Your task to perform on an android device: delete a single message in the gmail app Image 0: 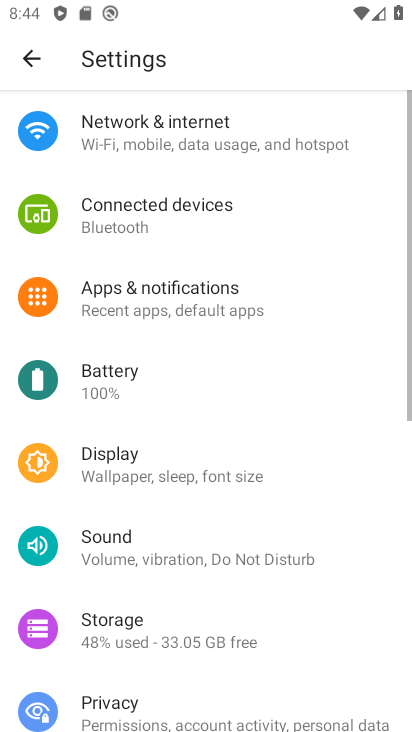
Step 0: press home button
Your task to perform on an android device: delete a single message in the gmail app Image 1: 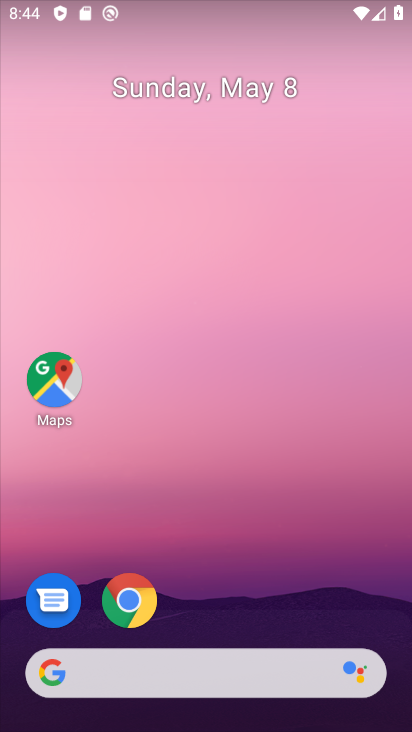
Step 1: drag from (220, 653) to (202, 3)
Your task to perform on an android device: delete a single message in the gmail app Image 2: 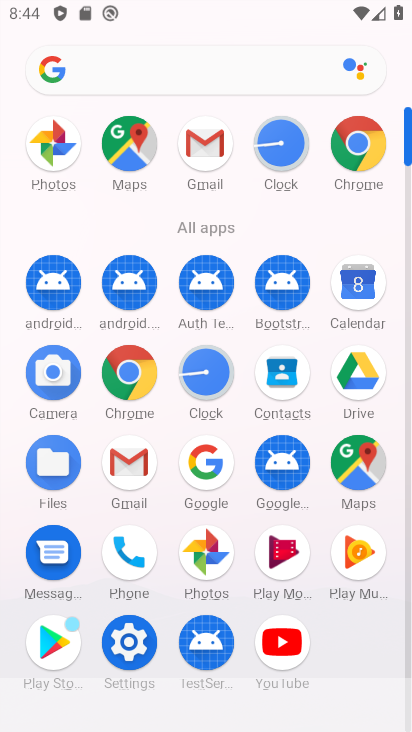
Step 2: click (211, 141)
Your task to perform on an android device: delete a single message in the gmail app Image 3: 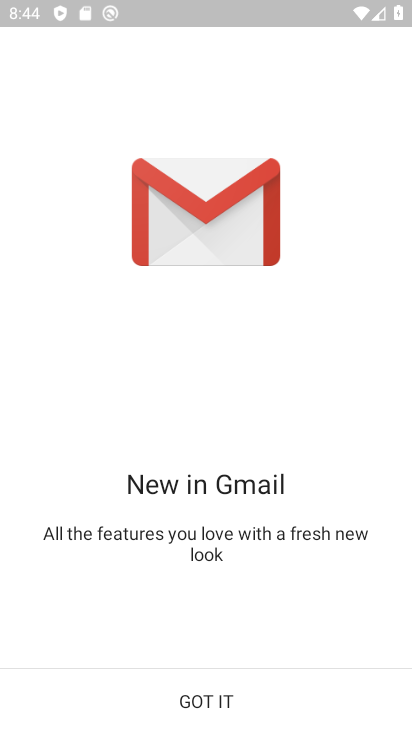
Step 3: click (167, 698)
Your task to perform on an android device: delete a single message in the gmail app Image 4: 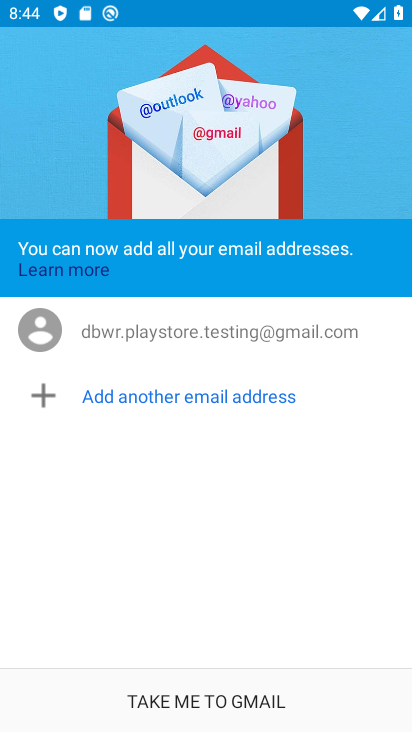
Step 4: click (162, 696)
Your task to perform on an android device: delete a single message in the gmail app Image 5: 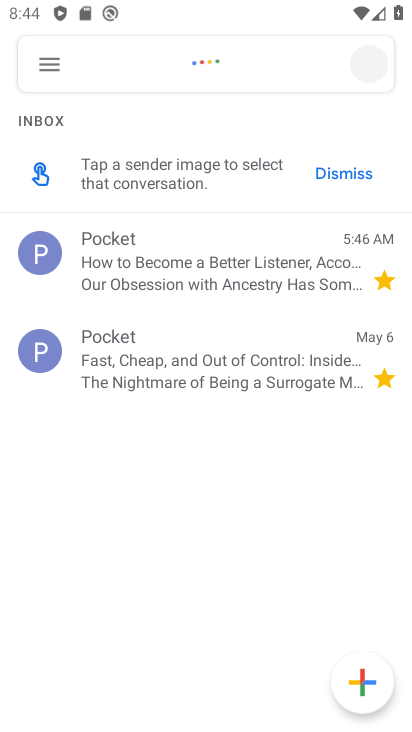
Step 5: click (157, 282)
Your task to perform on an android device: delete a single message in the gmail app Image 6: 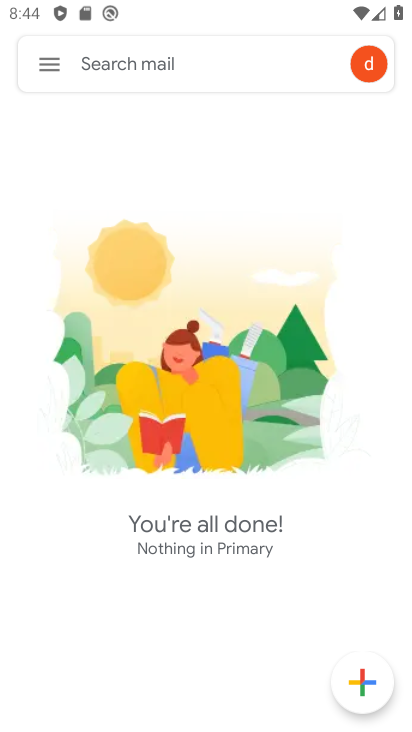
Step 6: click (55, 56)
Your task to perform on an android device: delete a single message in the gmail app Image 7: 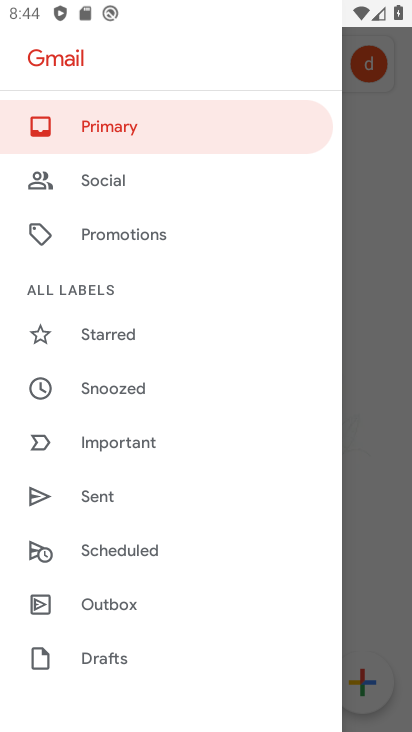
Step 7: drag from (116, 620) to (42, 45)
Your task to perform on an android device: delete a single message in the gmail app Image 8: 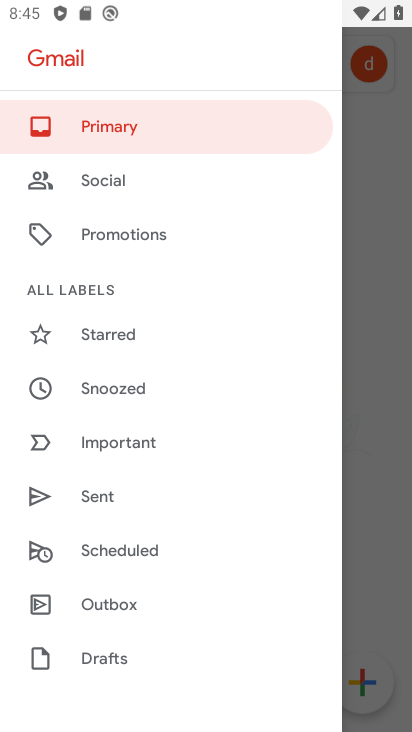
Step 8: click (143, 110)
Your task to perform on an android device: delete a single message in the gmail app Image 9: 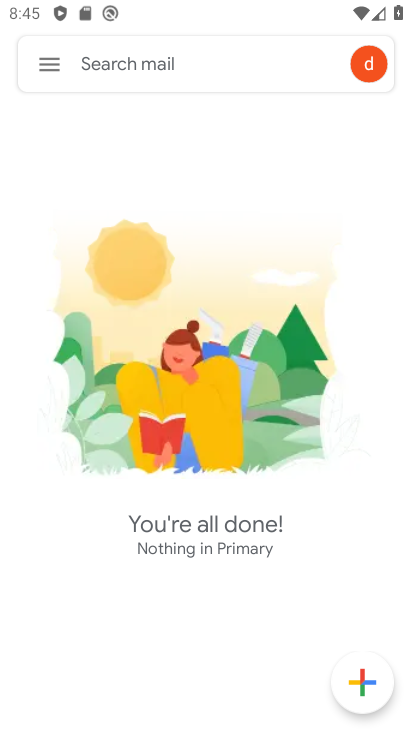
Step 9: task complete